Your task to perform on an android device: all mails in gmail Image 0: 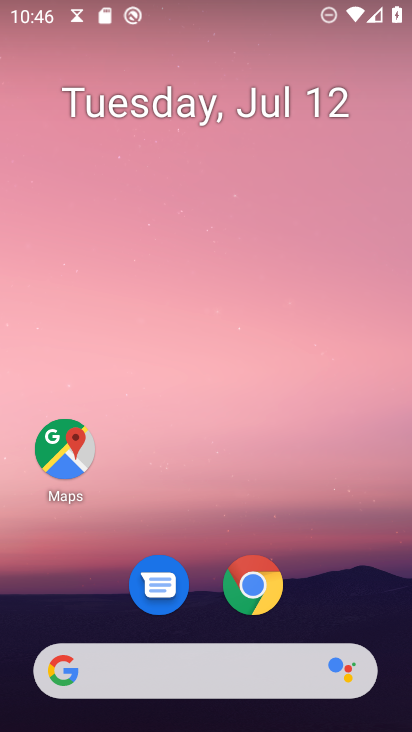
Step 0: press home button
Your task to perform on an android device: all mails in gmail Image 1: 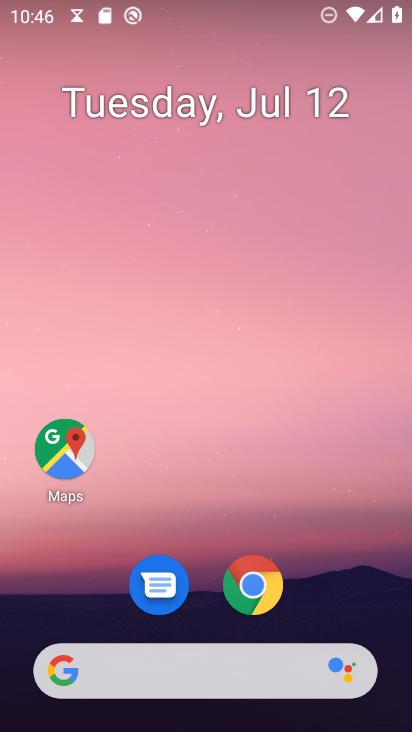
Step 1: drag from (229, 648) to (329, 109)
Your task to perform on an android device: all mails in gmail Image 2: 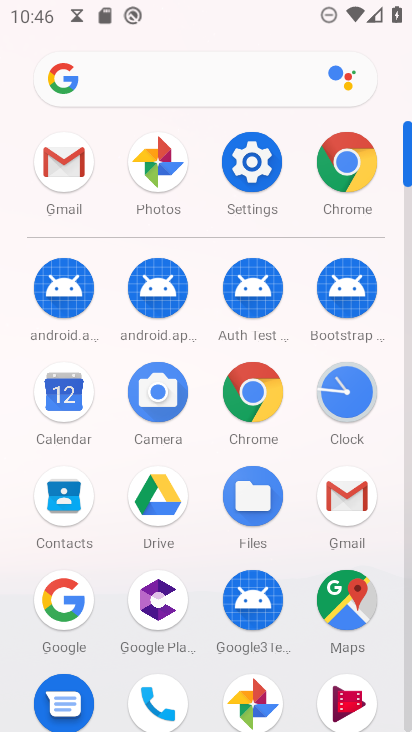
Step 2: click (79, 165)
Your task to perform on an android device: all mails in gmail Image 3: 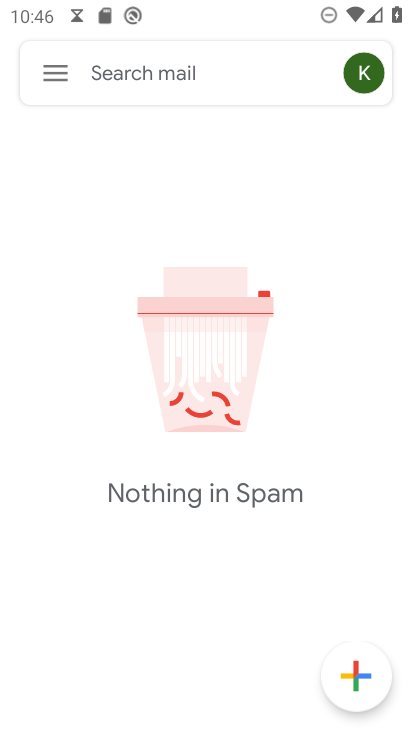
Step 3: click (61, 75)
Your task to perform on an android device: all mails in gmail Image 4: 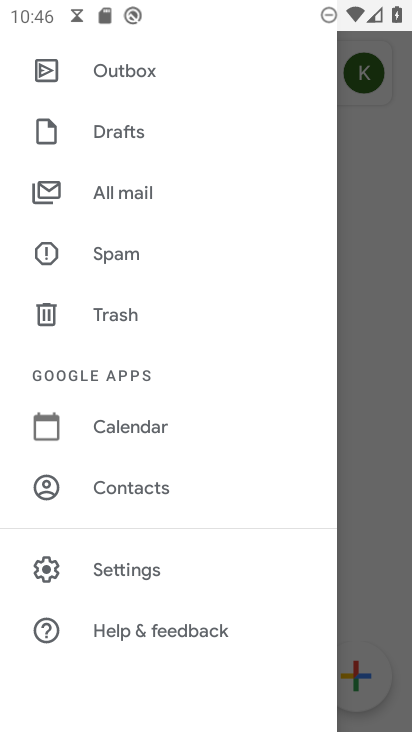
Step 4: click (144, 192)
Your task to perform on an android device: all mails in gmail Image 5: 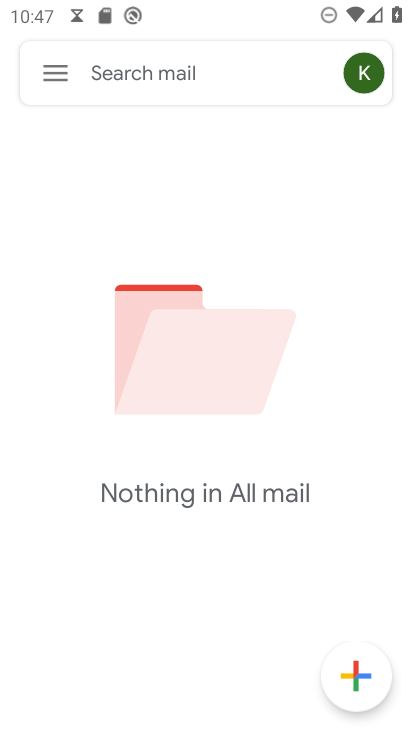
Step 5: task complete